Your task to perform on an android device: choose inbox layout in the gmail app Image 0: 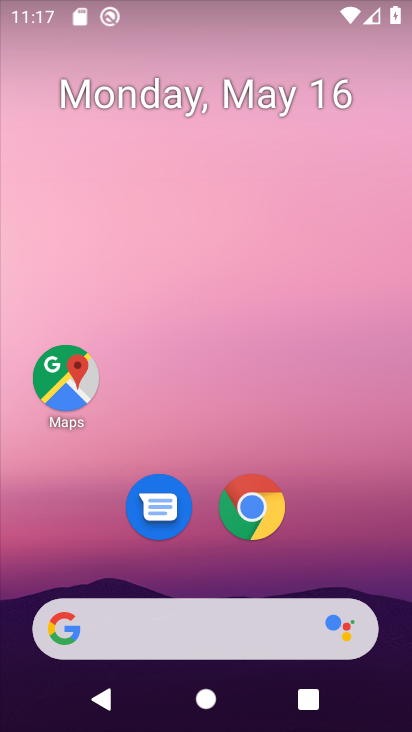
Step 0: drag from (90, 593) to (272, 156)
Your task to perform on an android device: choose inbox layout in the gmail app Image 1: 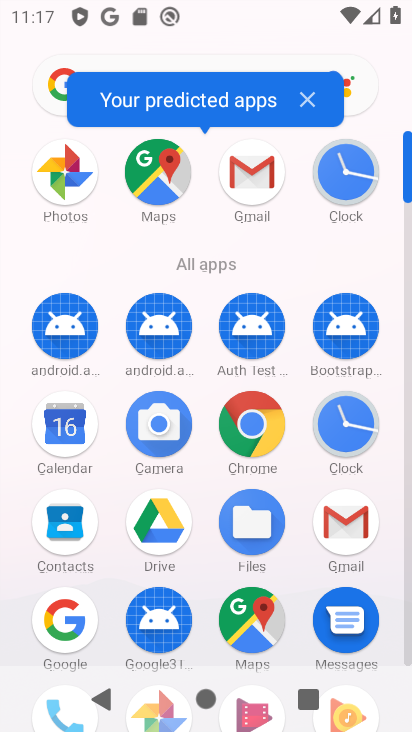
Step 1: click (362, 515)
Your task to perform on an android device: choose inbox layout in the gmail app Image 2: 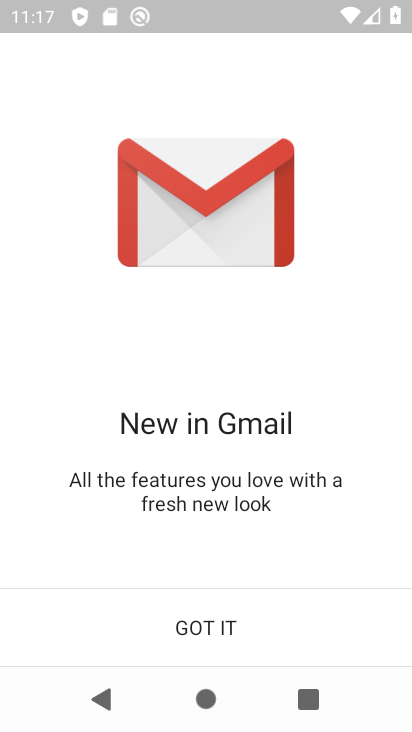
Step 2: click (268, 643)
Your task to perform on an android device: choose inbox layout in the gmail app Image 3: 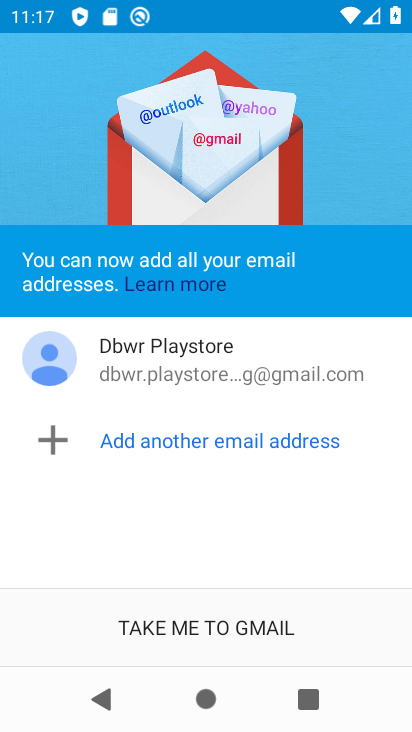
Step 3: click (268, 643)
Your task to perform on an android device: choose inbox layout in the gmail app Image 4: 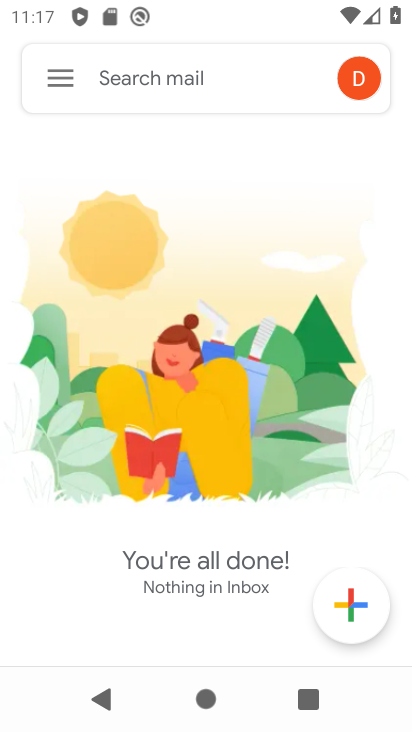
Step 4: click (69, 77)
Your task to perform on an android device: choose inbox layout in the gmail app Image 5: 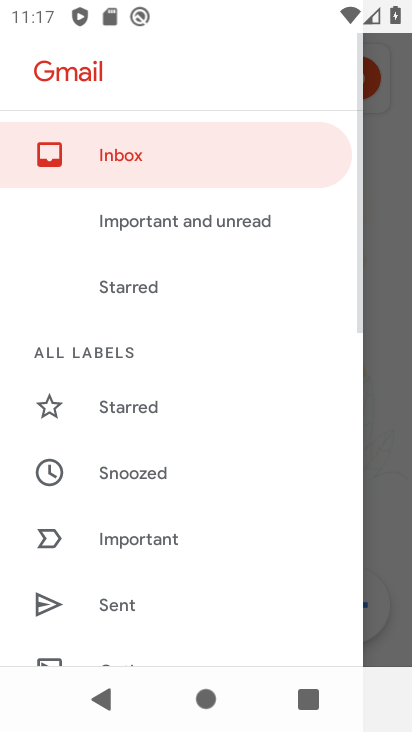
Step 5: drag from (150, 647) to (303, 176)
Your task to perform on an android device: choose inbox layout in the gmail app Image 6: 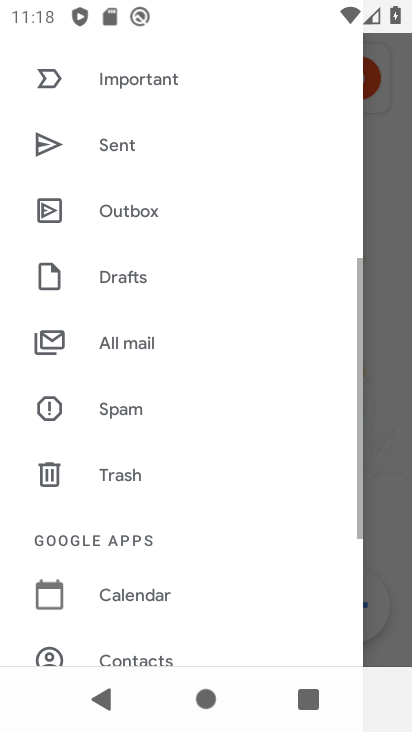
Step 6: drag from (155, 614) to (270, 241)
Your task to perform on an android device: choose inbox layout in the gmail app Image 7: 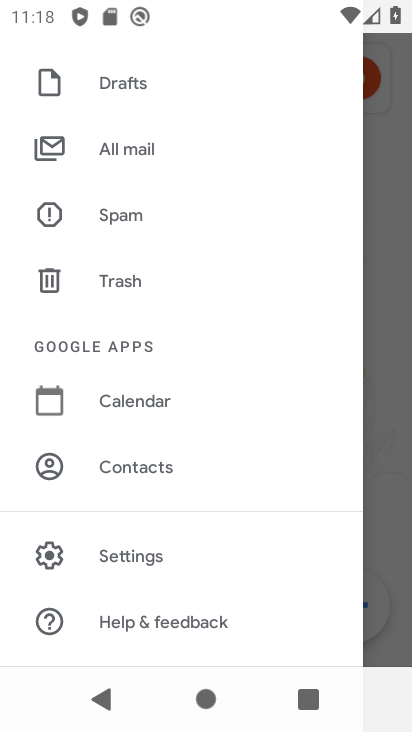
Step 7: click (148, 556)
Your task to perform on an android device: choose inbox layout in the gmail app Image 8: 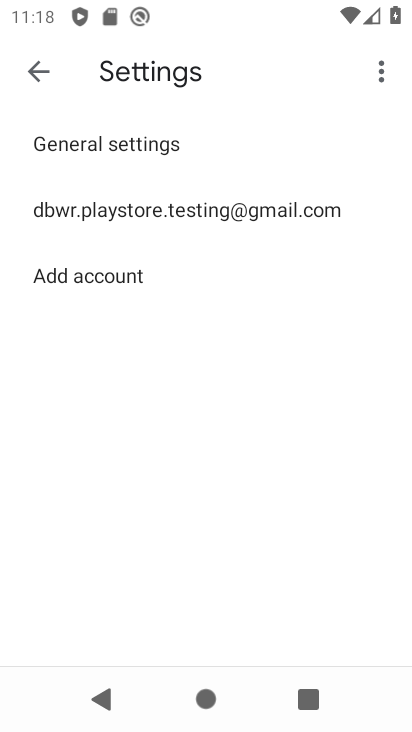
Step 8: click (226, 213)
Your task to perform on an android device: choose inbox layout in the gmail app Image 9: 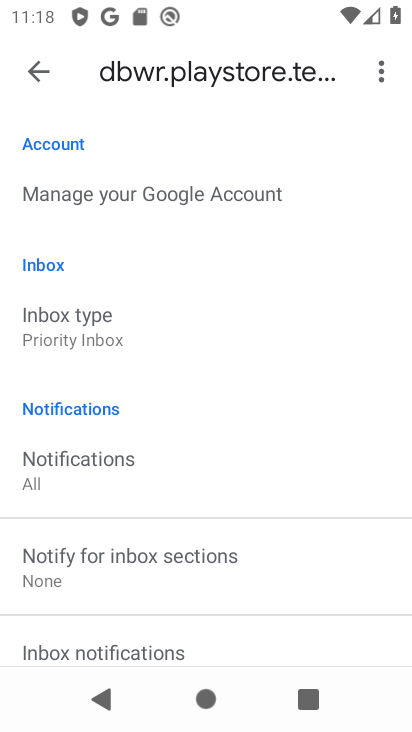
Step 9: click (187, 332)
Your task to perform on an android device: choose inbox layout in the gmail app Image 10: 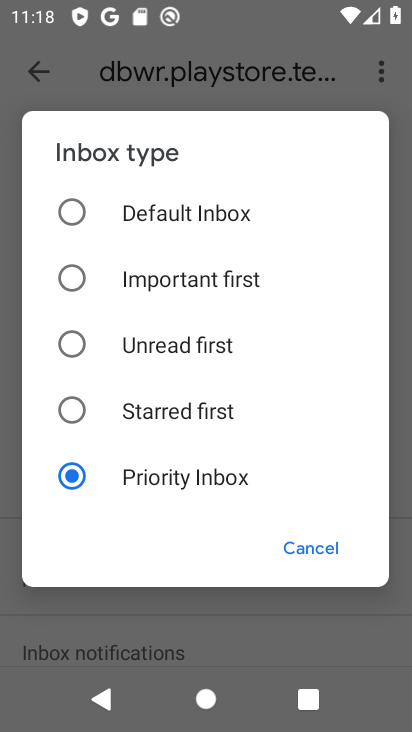
Step 10: click (210, 359)
Your task to perform on an android device: choose inbox layout in the gmail app Image 11: 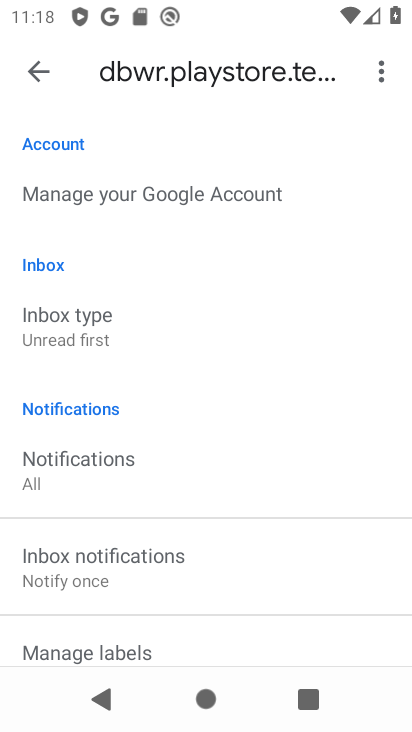
Step 11: task complete